Your task to perform on an android device: Go to accessibility settings Image 0: 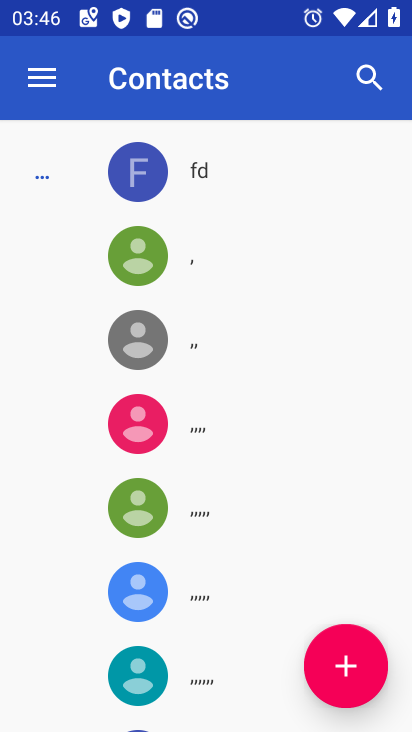
Step 0: press home button
Your task to perform on an android device: Go to accessibility settings Image 1: 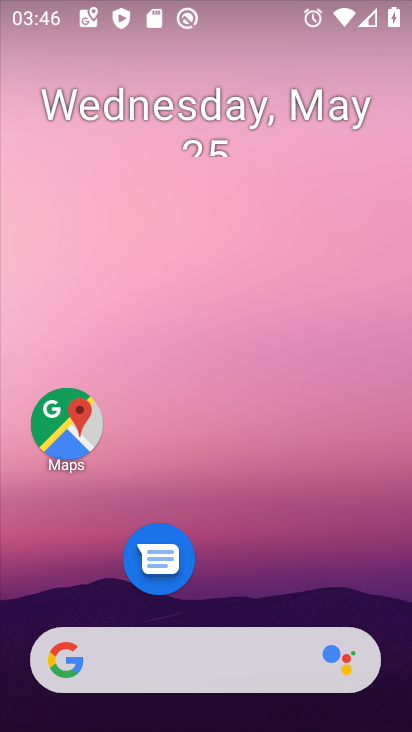
Step 1: drag from (226, 602) to (224, 71)
Your task to perform on an android device: Go to accessibility settings Image 2: 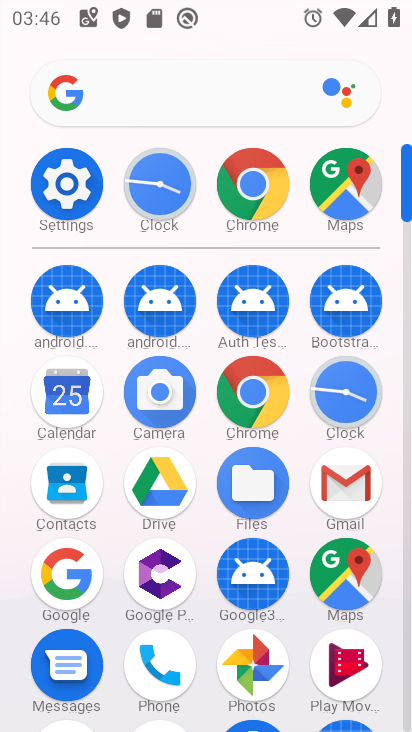
Step 2: click (65, 176)
Your task to perform on an android device: Go to accessibility settings Image 3: 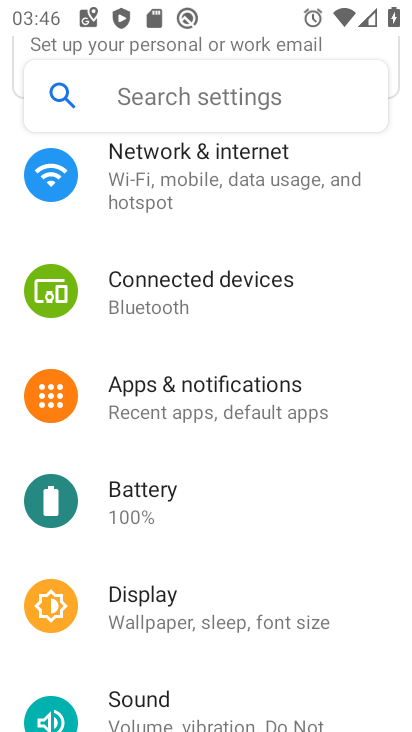
Step 3: drag from (193, 651) to (199, 147)
Your task to perform on an android device: Go to accessibility settings Image 4: 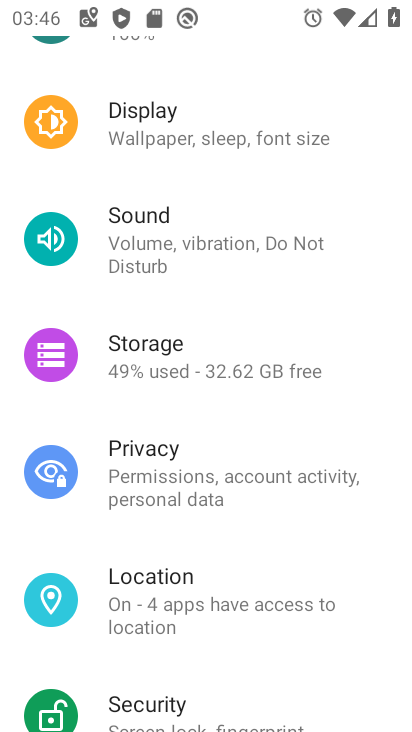
Step 4: drag from (198, 669) to (238, 114)
Your task to perform on an android device: Go to accessibility settings Image 5: 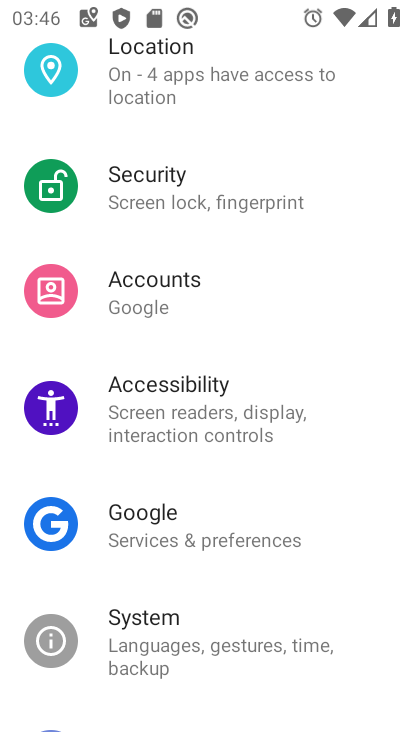
Step 5: click (241, 382)
Your task to perform on an android device: Go to accessibility settings Image 6: 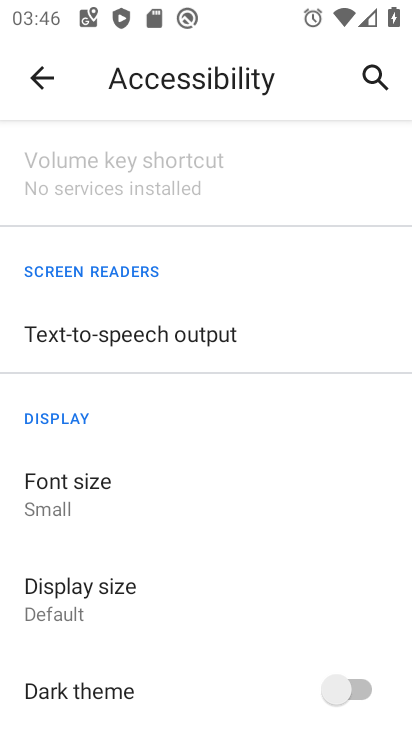
Step 6: task complete